Your task to perform on an android device: Play the last video I watched on Youtube Image 0: 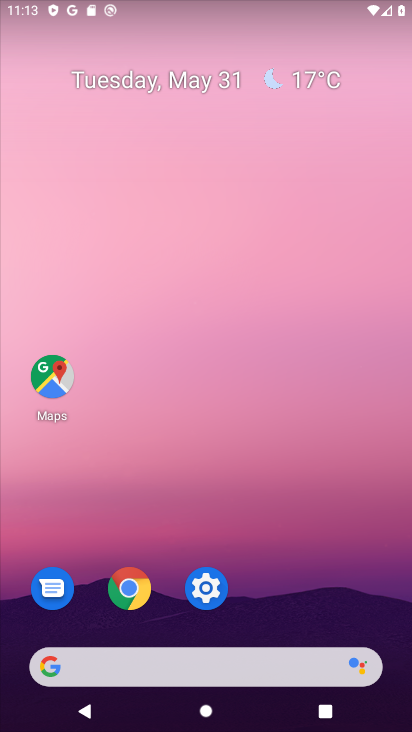
Step 0: drag from (248, 681) to (232, 225)
Your task to perform on an android device: Play the last video I watched on Youtube Image 1: 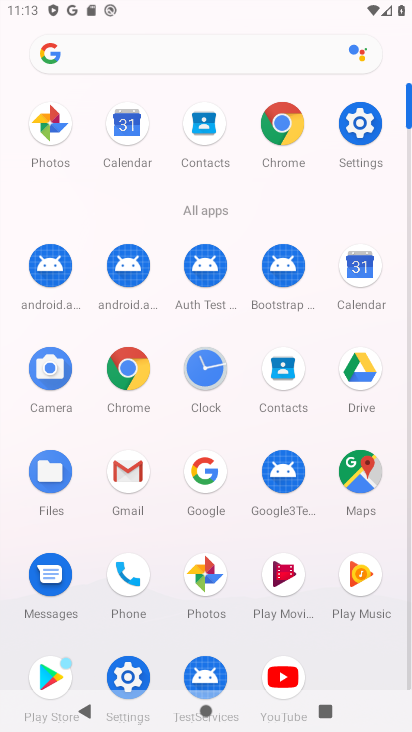
Step 1: click (287, 668)
Your task to perform on an android device: Play the last video I watched on Youtube Image 2: 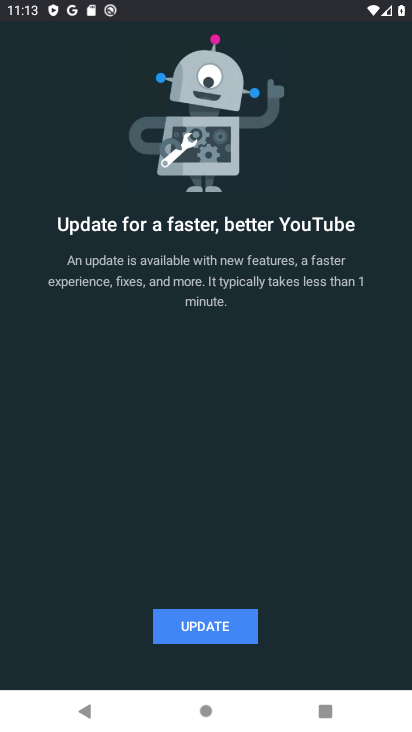
Step 2: click (216, 626)
Your task to perform on an android device: Play the last video I watched on Youtube Image 3: 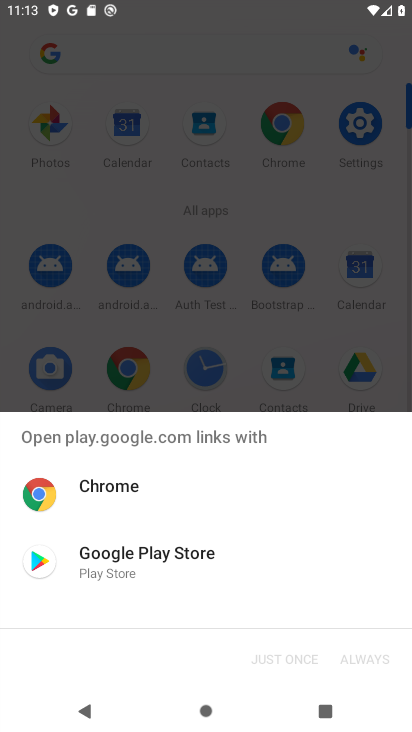
Step 3: click (191, 578)
Your task to perform on an android device: Play the last video I watched on Youtube Image 4: 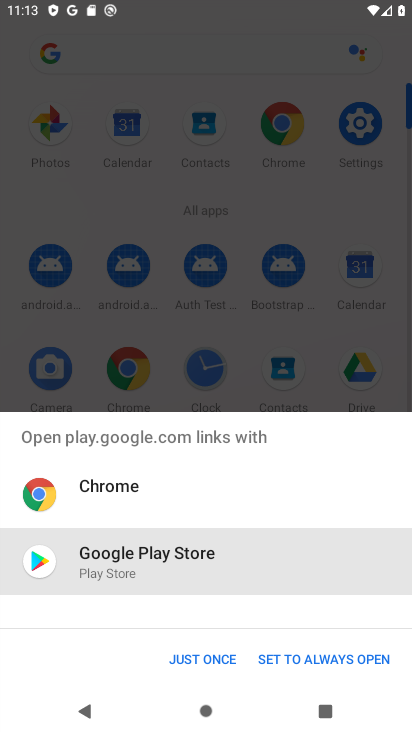
Step 4: click (209, 660)
Your task to perform on an android device: Play the last video I watched on Youtube Image 5: 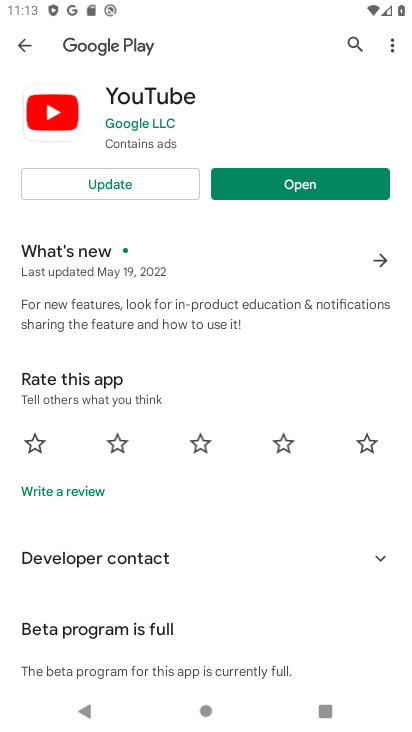
Step 5: click (105, 187)
Your task to perform on an android device: Play the last video I watched on Youtube Image 6: 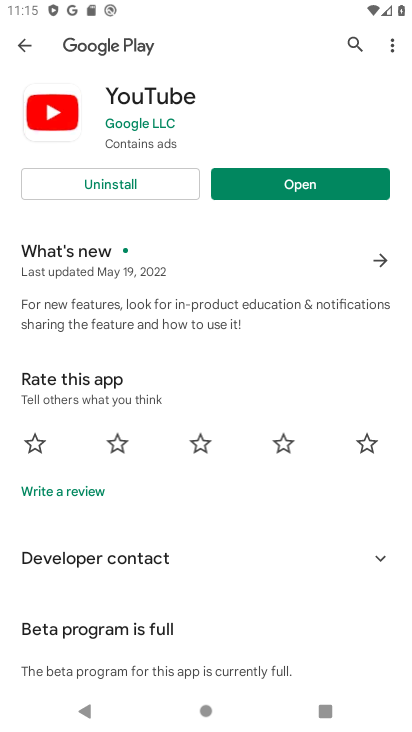
Step 6: click (294, 176)
Your task to perform on an android device: Play the last video I watched on Youtube Image 7: 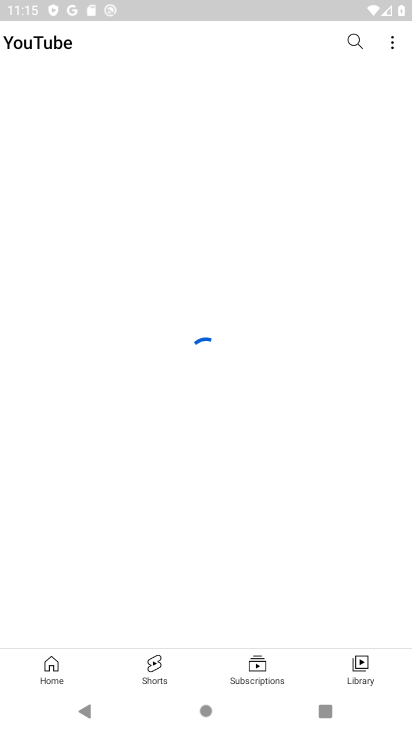
Step 7: click (356, 667)
Your task to perform on an android device: Play the last video I watched on Youtube Image 8: 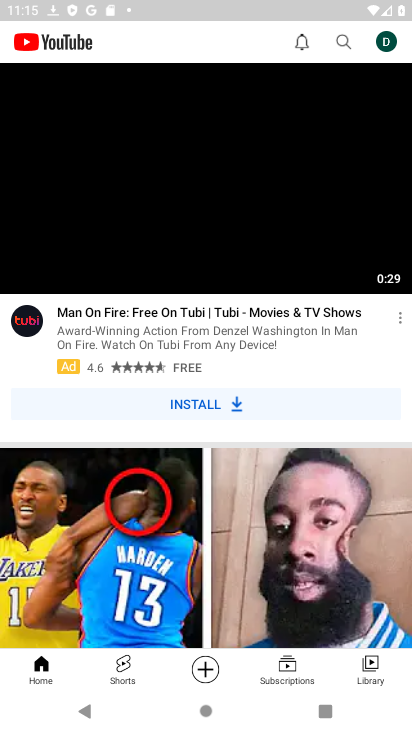
Step 8: click (394, 674)
Your task to perform on an android device: Play the last video I watched on Youtube Image 9: 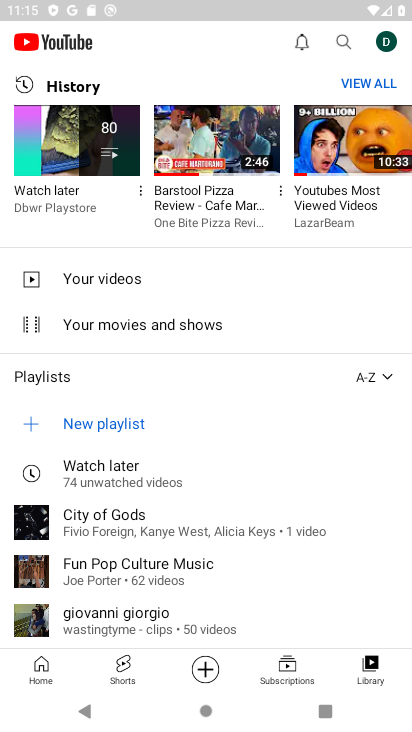
Step 9: click (64, 158)
Your task to perform on an android device: Play the last video I watched on Youtube Image 10: 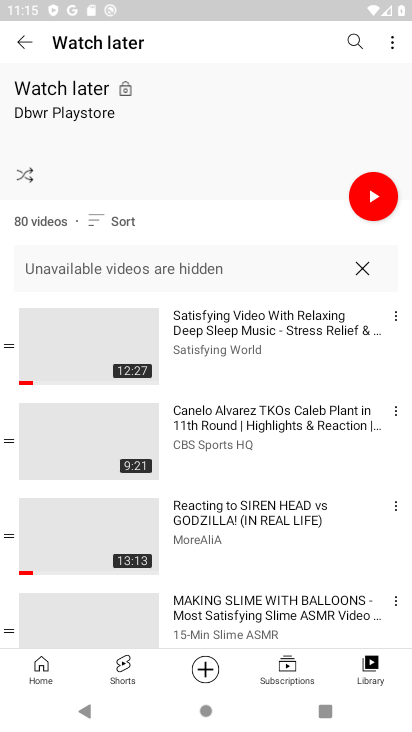
Step 10: task complete